Your task to perform on an android device: Go to Amazon Image 0: 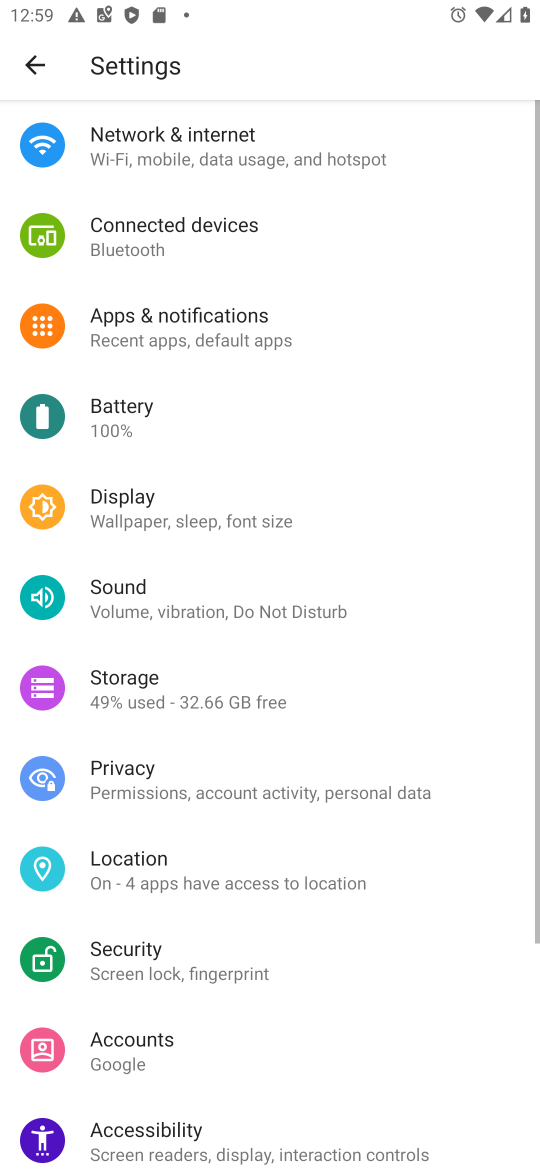
Step 0: press home button
Your task to perform on an android device: Go to Amazon Image 1: 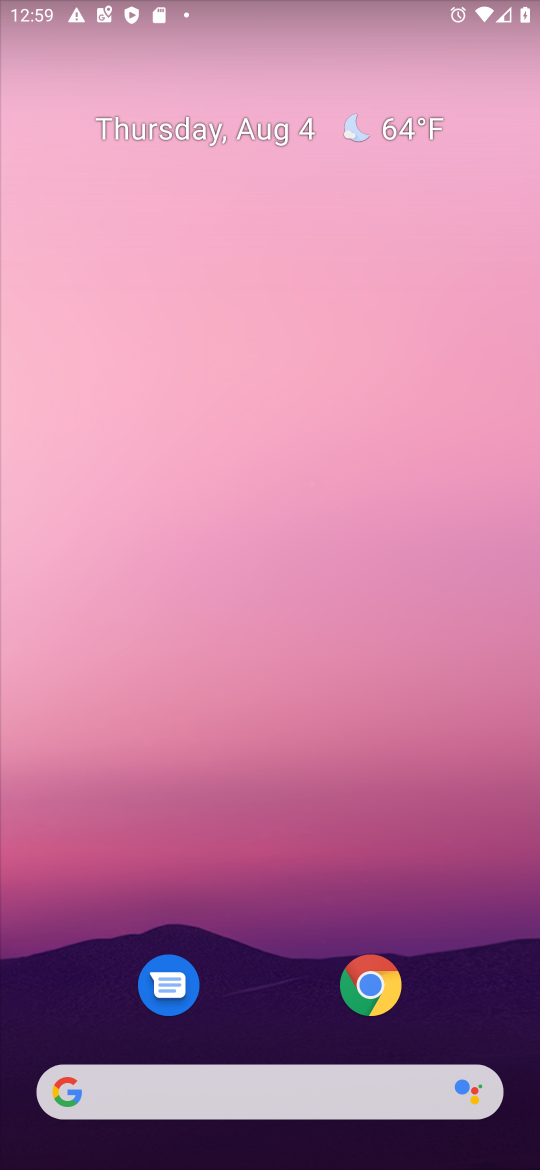
Step 1: click (385, 983)
Your task to perform on an android device: Go to Amazon Image 2: 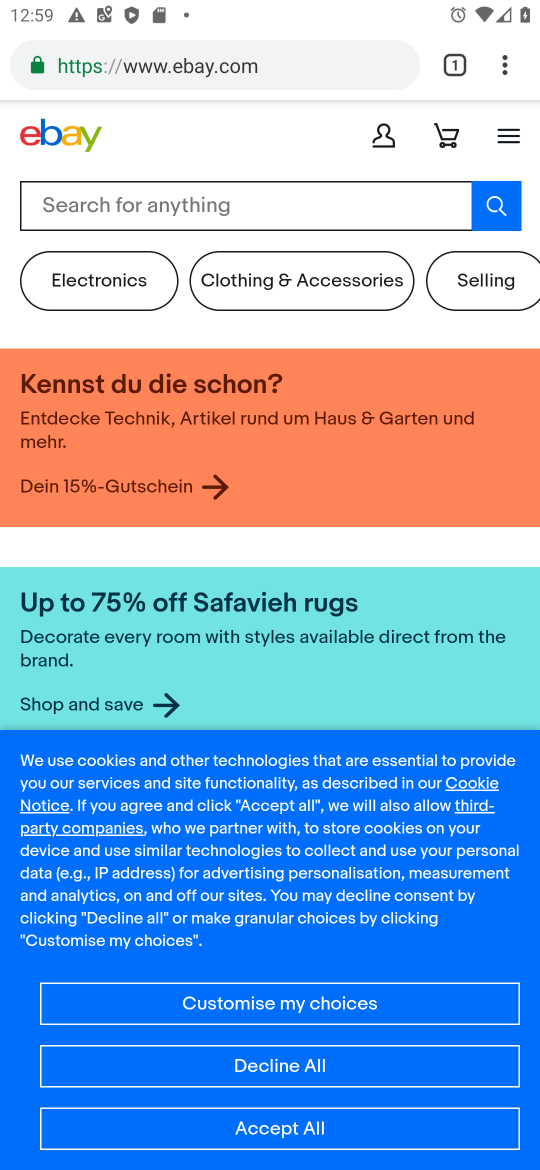
Step 2: click (517, 69)
Your task to perform on an android device: Go to Amazon Image 3: 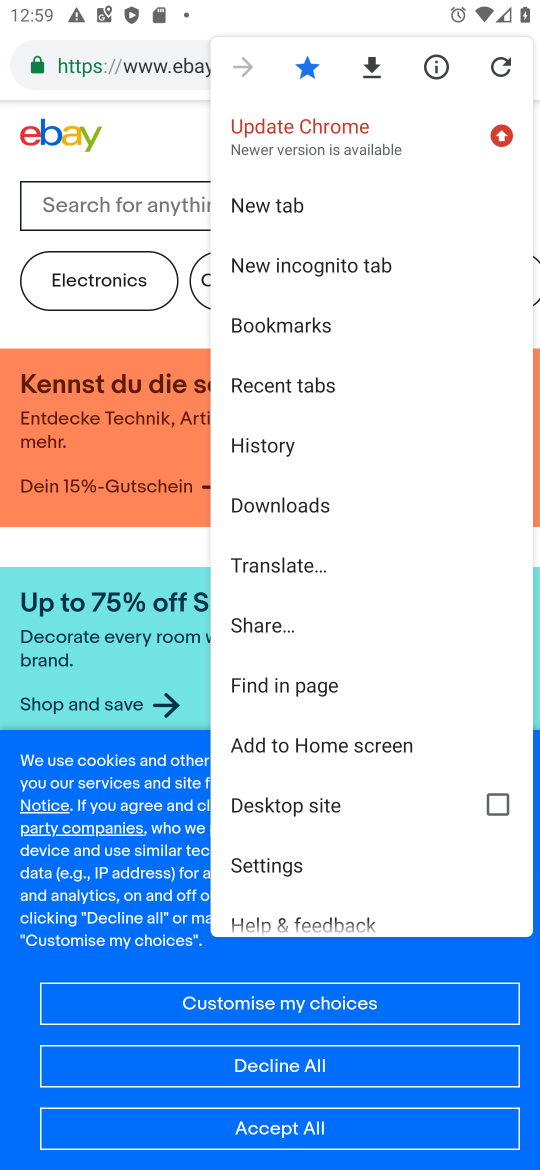
Step 3: click (253, 202)
Your task to perform on an android device: Go to Amazon Image 4: 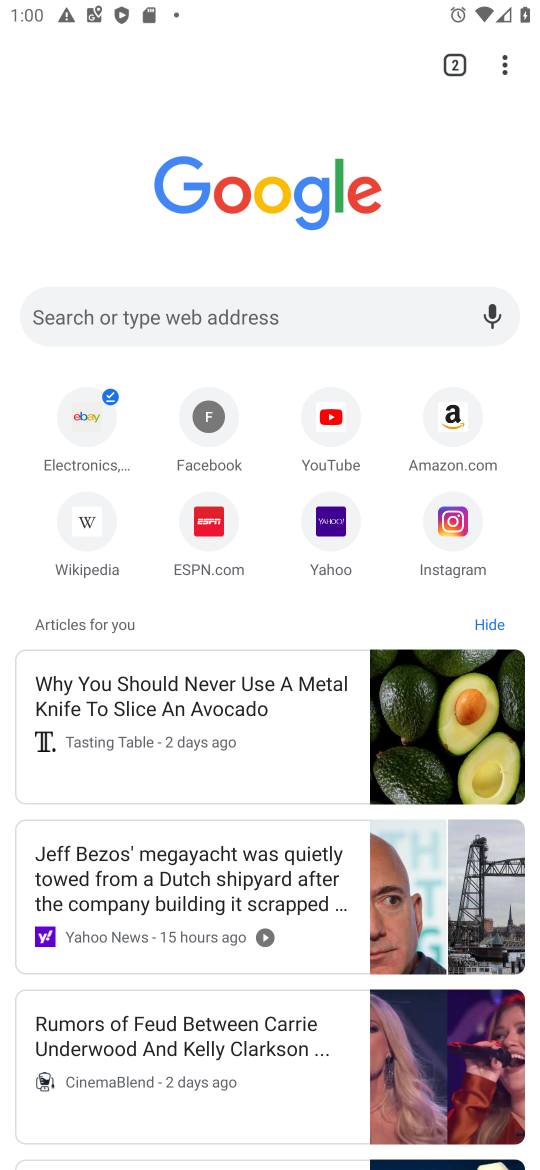
Step 4: click (459, 422)
Your task to perform on an android device: Go to Amazon Image 5: 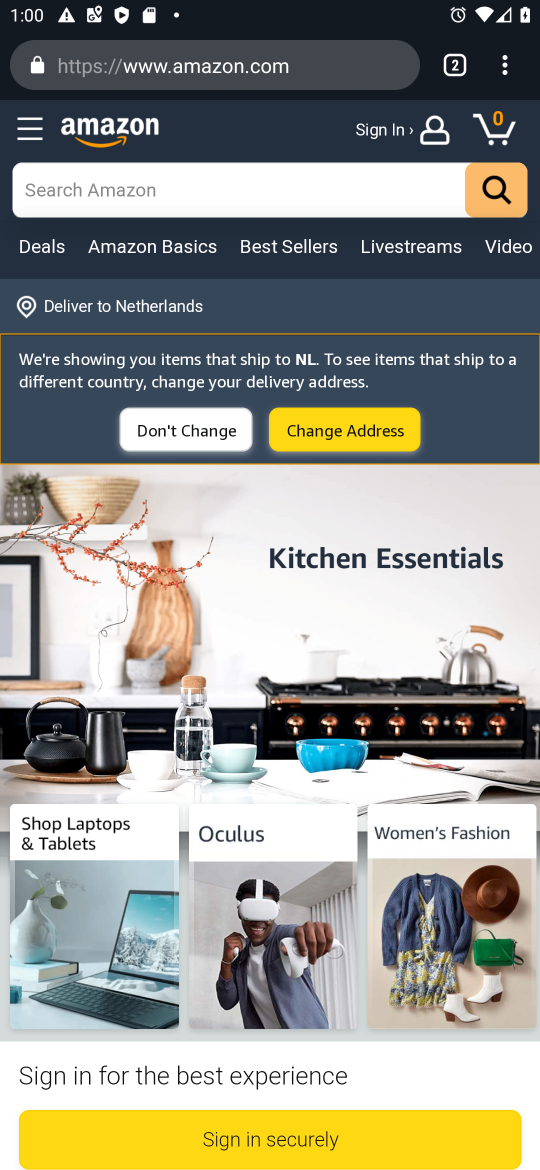
Step 5: task complete